Your task to perform on an android device: change keyboard looks Image 0: 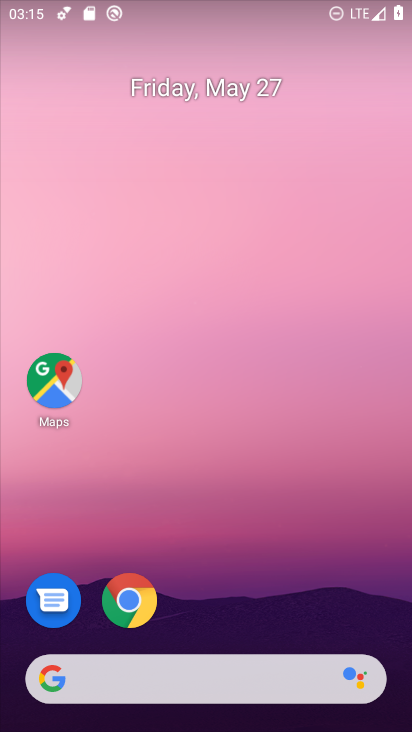
Step 0: drag from (213, 722) to (210, 207)
Your task to perform on an android device: change keyboard looks Image 1: 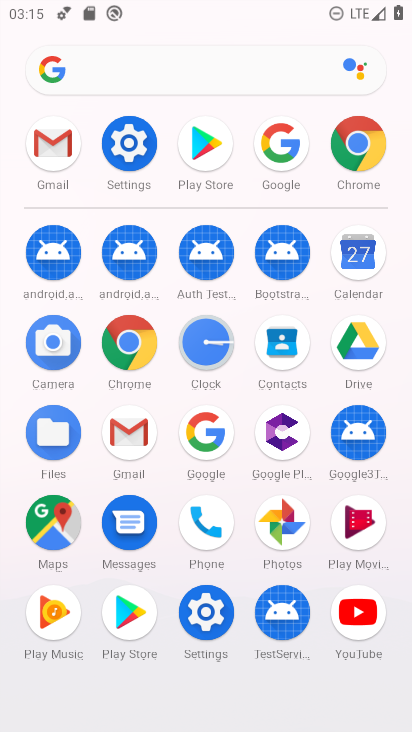
Step 1: click (120, 131)
Your task to perform on an android device: change keyboard looks Image 2: 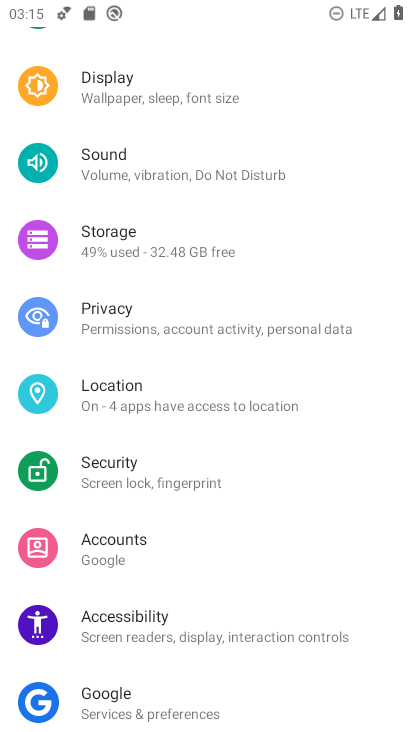
Step 2: drag from (207, 681) to (216, 224)
Your task to perform on an android device: change keyboard looks Image 3: 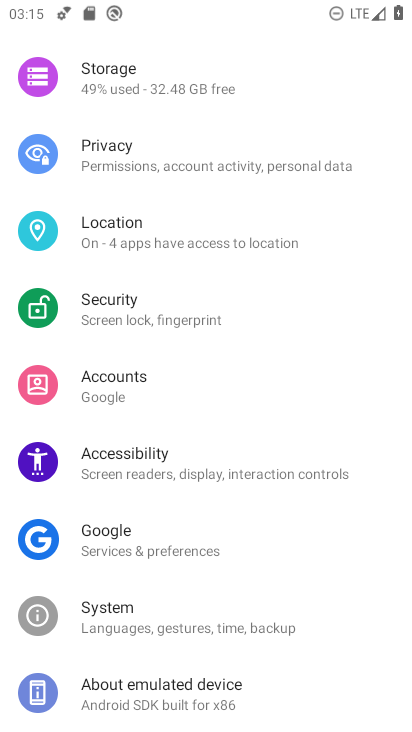
Step 3: click (140, 614)
Your task to perform on an android device: change keyboard looks Image 4: 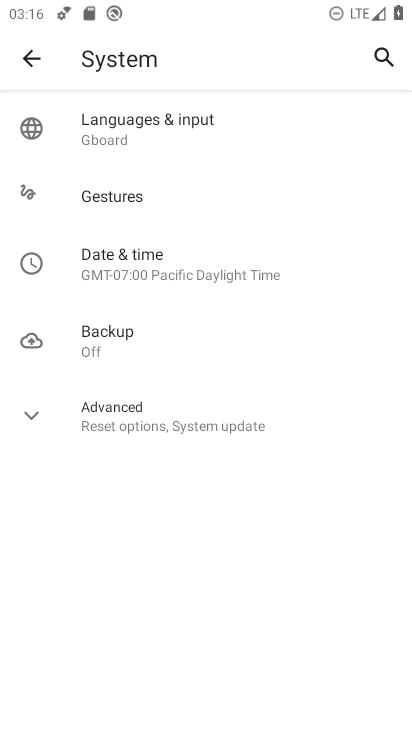
Step 4: click (143, 119)
Your task to perform on an android device: change keyboard looks Image 5: 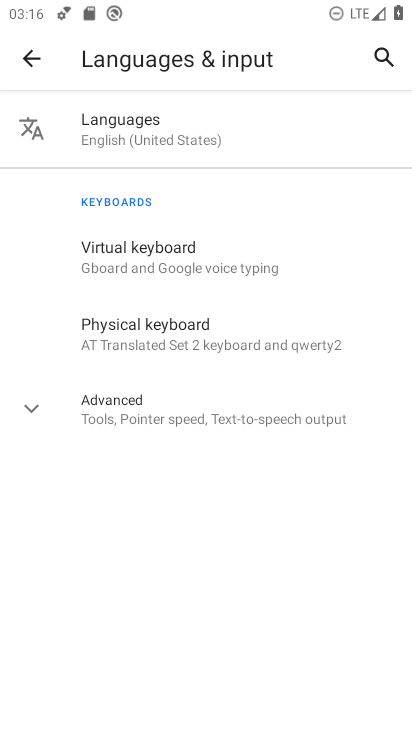
Step 5: click (144, 254)
Your task to perform on an android device: change keyboard looks Image 6: 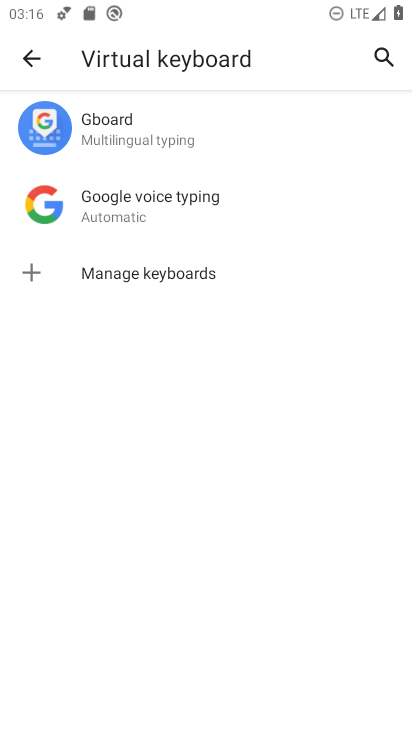
Step 6: click (121, 126)
Your task to perform on an android device: change keyboard looks Image 7: 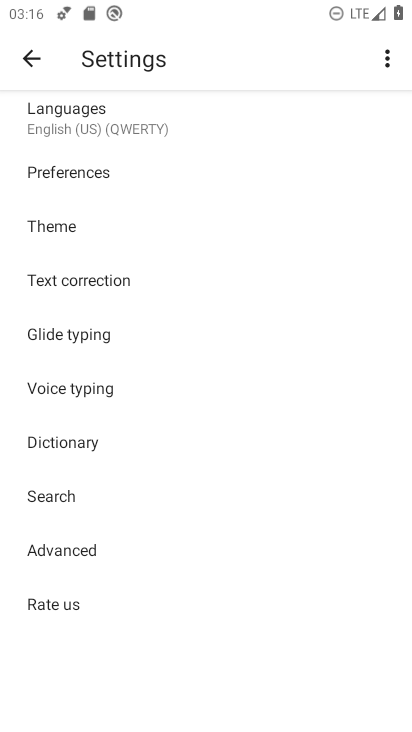
Step 7: click (53, 224)
Your task to perform on an android device: change keyboard looks Image 8: 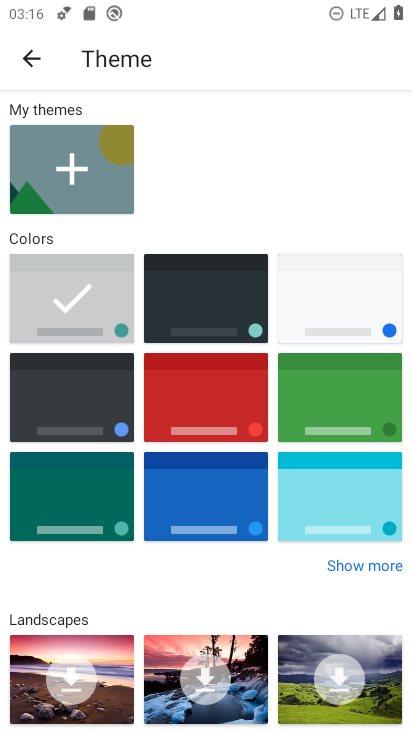
Step 8: click (194, 304)
Your task to perform on an android device: change keyboard looks Image 9: 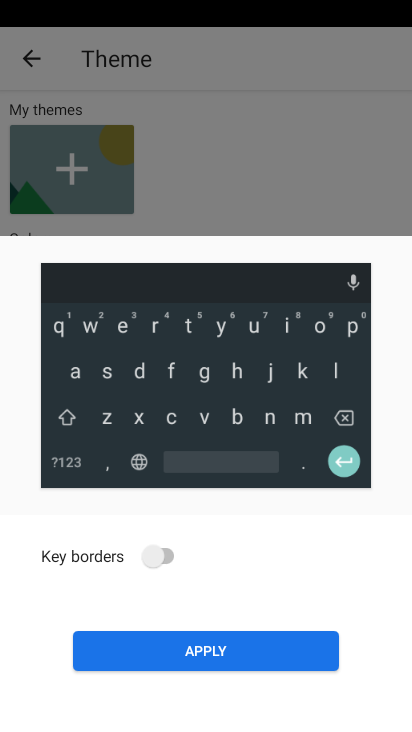
Step 9: click (167, 552)
Your task to perform on an android device: change keyboard looks Image 10: 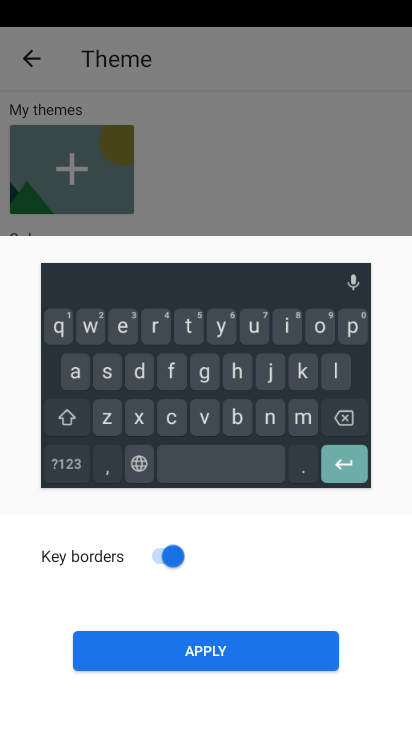
Step 10: click (203, 646)
Your task to perform on an android device: change keyboard looks Image 11: 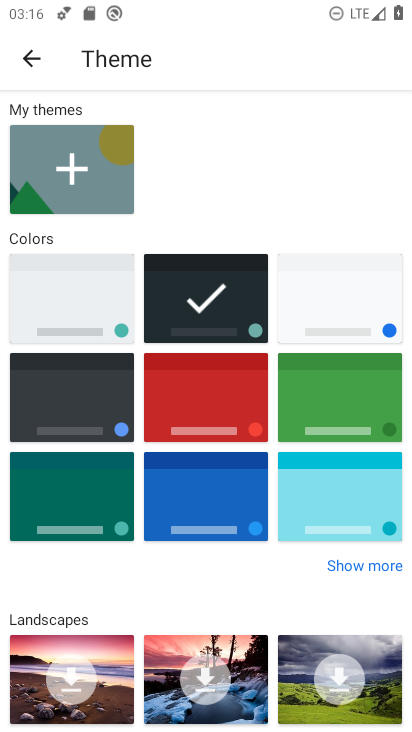
Step 11: task complete